Your task to perform on an android device: What's the weather going to be tomorrow? Image 0: 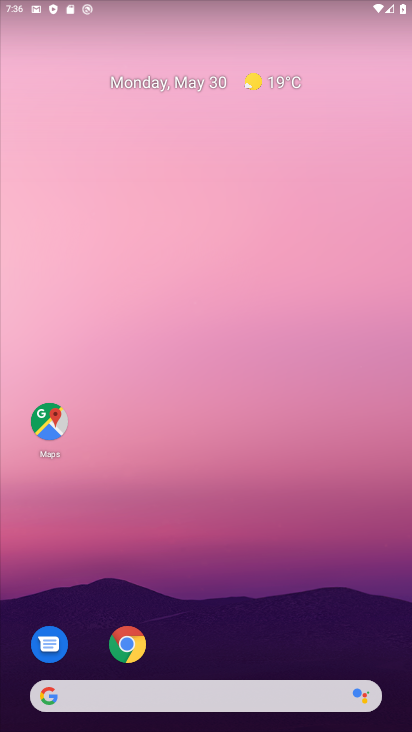
Step 0: drag from (181, 654) to (292, 8)
Your task to perform on an android device: What's the weather going to be tomorrow? Image 1: 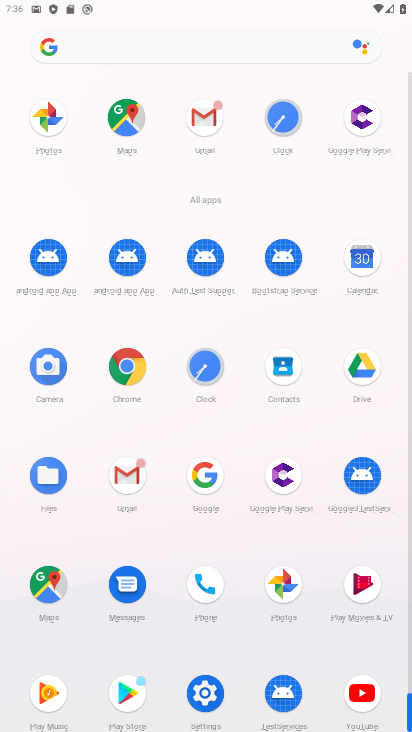
Step 1: drag from (265, 588) to (265, 227)
Your task to perform on an android device: What's the weather going to be tomorrow? Image 2: 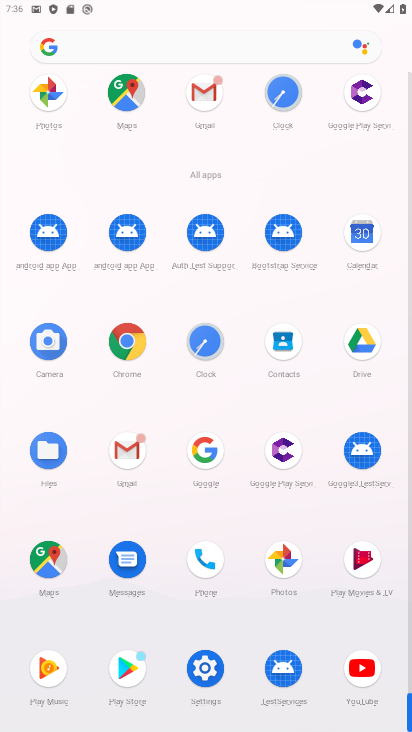
Step 2: drag from (256, 542) to (234, 176)
Your task to perform on an android device: What's the weather going to be tomorrow? Image 3: 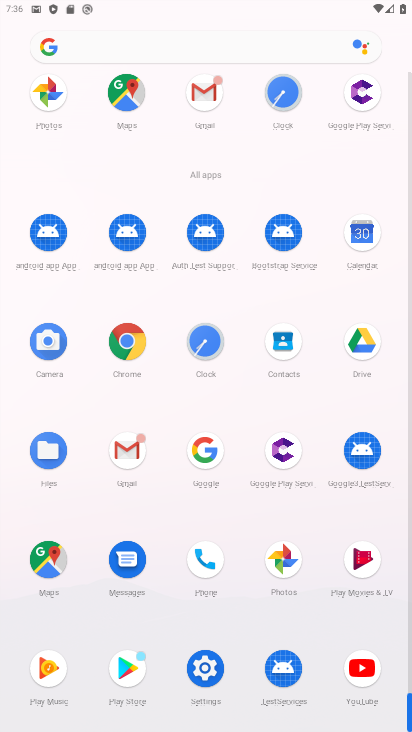
Step 3: drag from (248, 553) to (251, 211)
Your task to perform on an android device: What's the weather going to be tomorrow? Image 4: 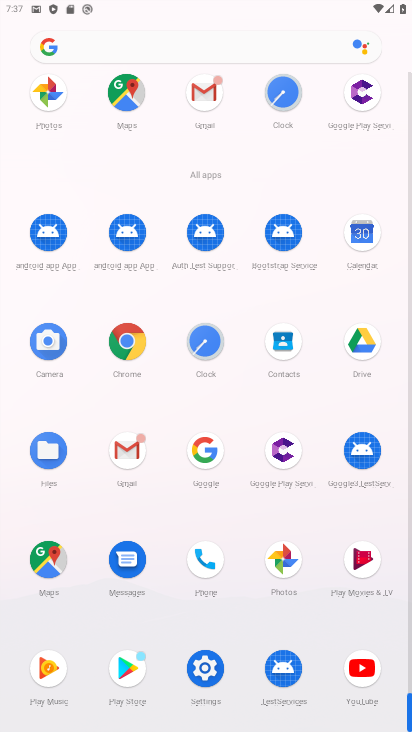
Step 4: click (177, 51)
Your task to perform on an android device: What's the weather going to be tomorrow? Image 5: 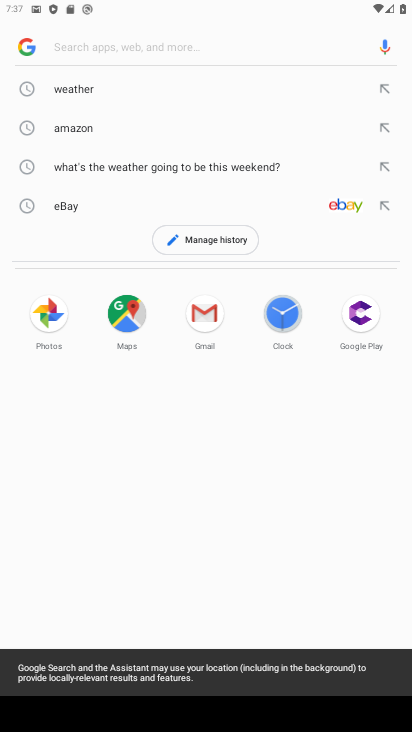
Step 5: click (90, 93)
Your task to perform on an android device: What's the weather going to be tomorrow? Image 6: 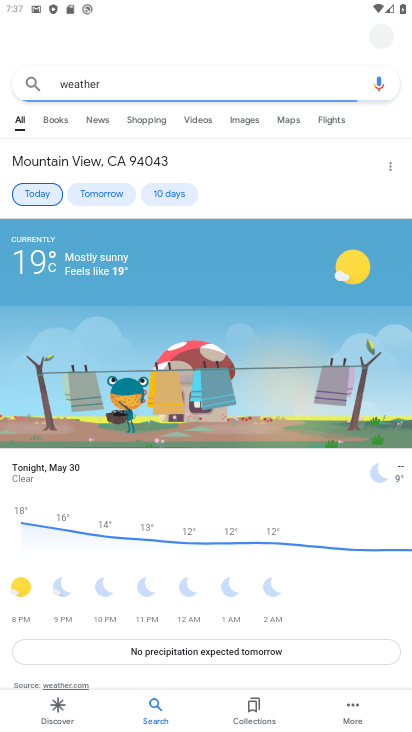
Step 6: drag from (220, 499) to (249, 106)
Your task to perform on an android device: What's the weather going to be tomorrow? Image 7: 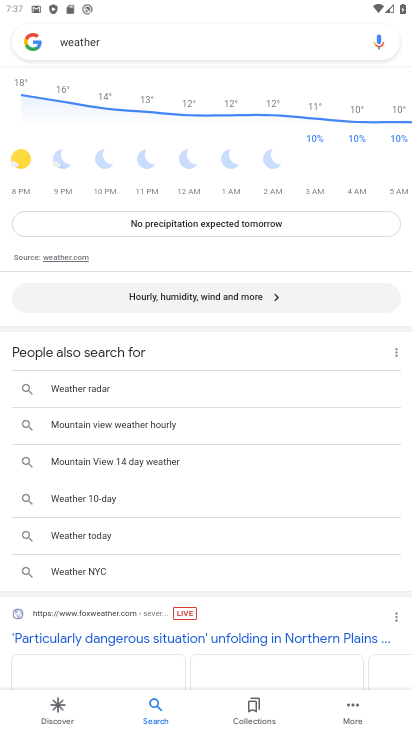
Step 7: drag from (166, 485) to (246, 166)
Your task to perform on an android device: What's the weather going to be tomorrow? Image 8: 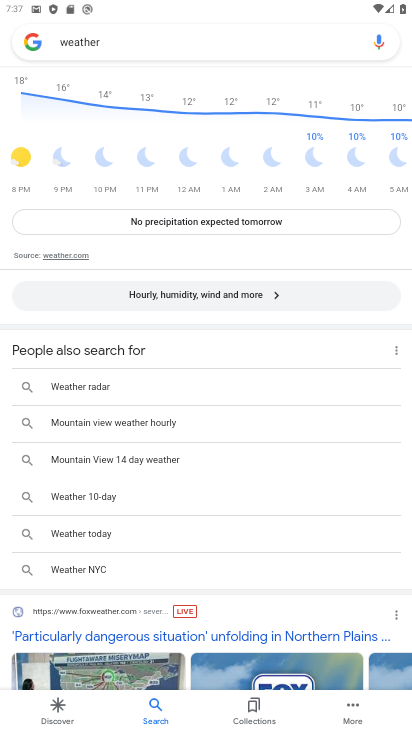
Step 8: click (121, 42)
Your task to perform on an android device: What's the weather going to be tomorrow? Image 9: 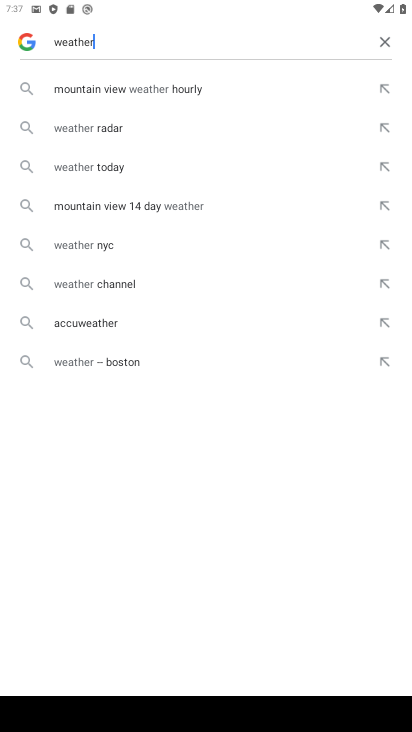
Step 9: type " tomorrow"
Your task to perform on an android device: What's the weather going to be tomorrow? Image 10: 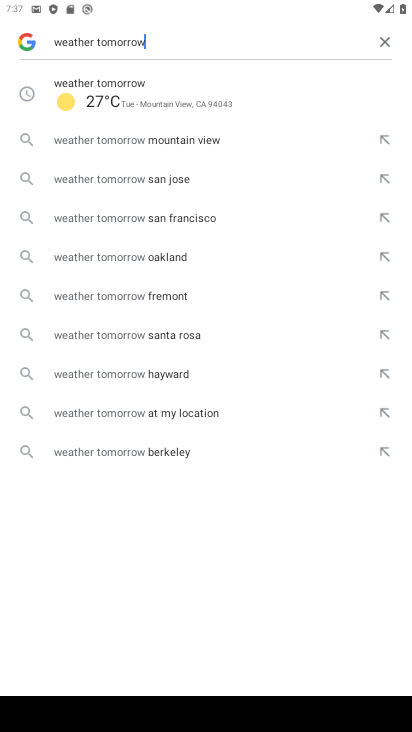
Step 10: click (128, 84)
Your task to perform on an android device: What's the weather going to be tomorrow? Image 11: 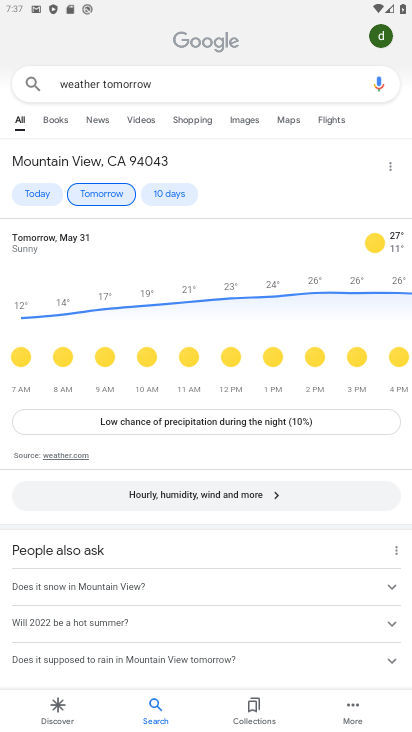
Step 11: task complete